Your task to perform on an android device: Go to Maps Image 0: 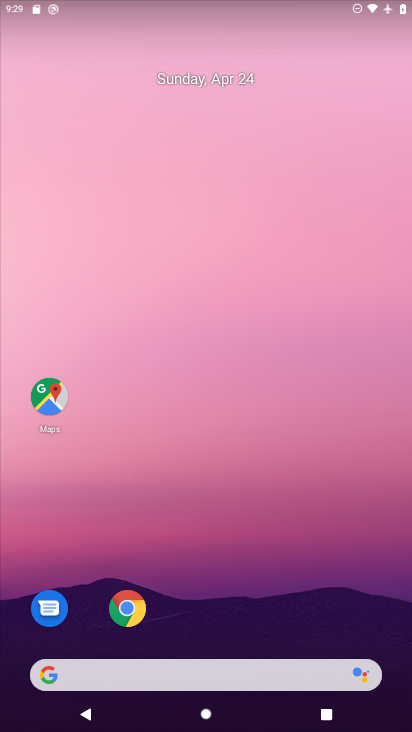
Step 0: click (33, 398)
Your task to perform on an android device: Go to Maps Image 1: 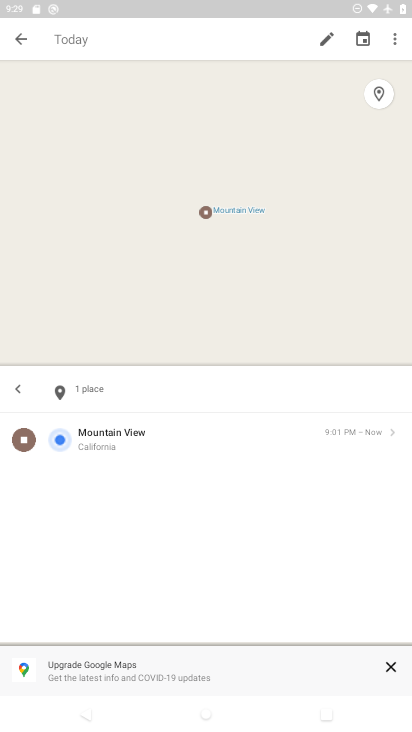
Step 1: task complete